Your task to perform on an android device: Open battery settings Image 0: 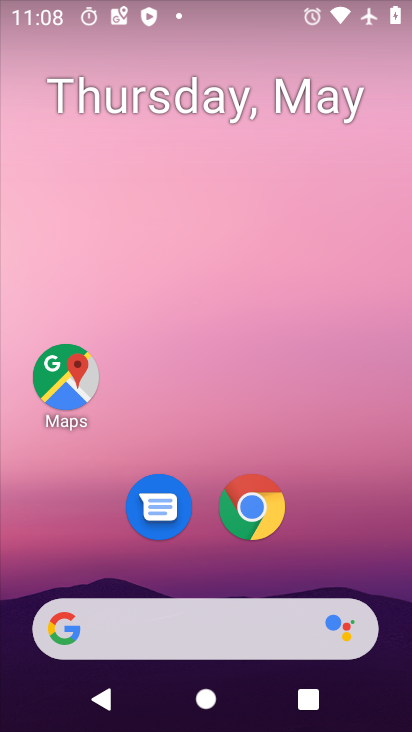
Step 0: drag from (329, 489) to (217, 34)
Your task to perform on an android device: Open battery settings Image 1: 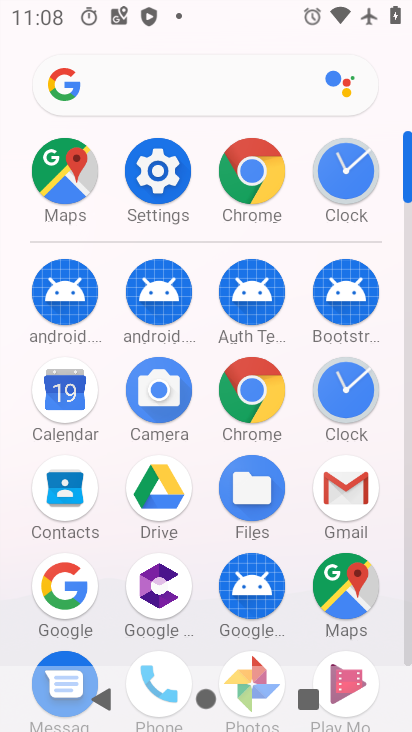
Step 1: click (156, 164)
Your task to perform on an android device: Open battery settings Image 2: 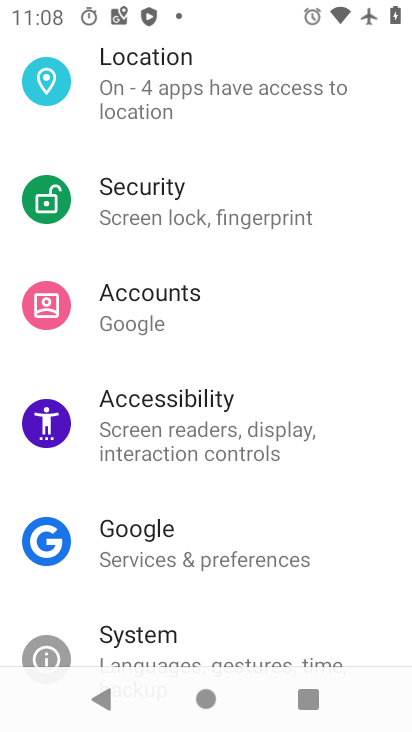
Step 2: drag from (229, 533) to (257, 70)
Your task to perform on an android device: Open battery settings Image 3: 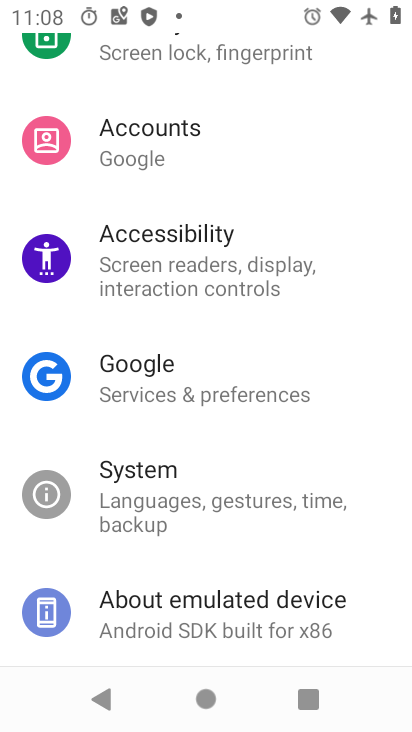
Step 3: drag from (271, 161) to (201, 549)
Your task to perform on an android device: Open battery settings Image 4: 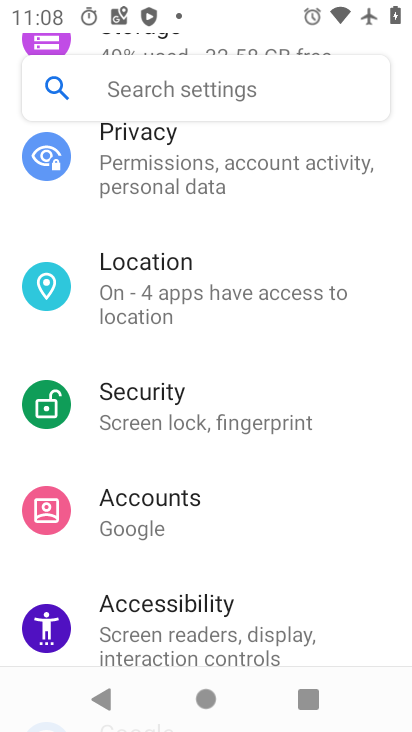
Step 4: drag from (225, 216) to (222, 582)
Your task to perform on an android device: Open battery settings Image 5: 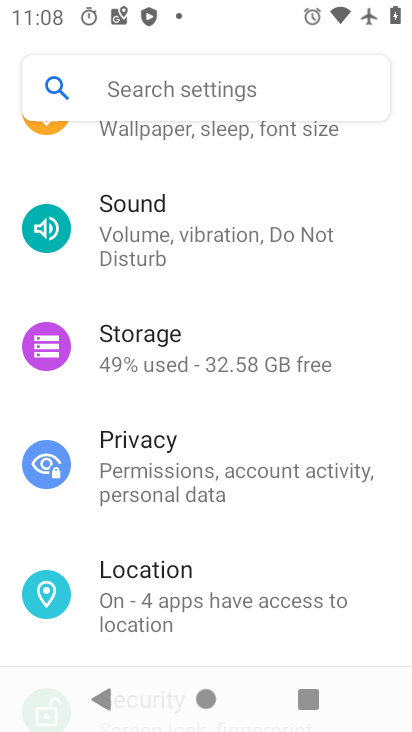
Step 5: drag from (240, 252) to (234, 557)
Your task to perform on an android device: Open battery settings Image 6: 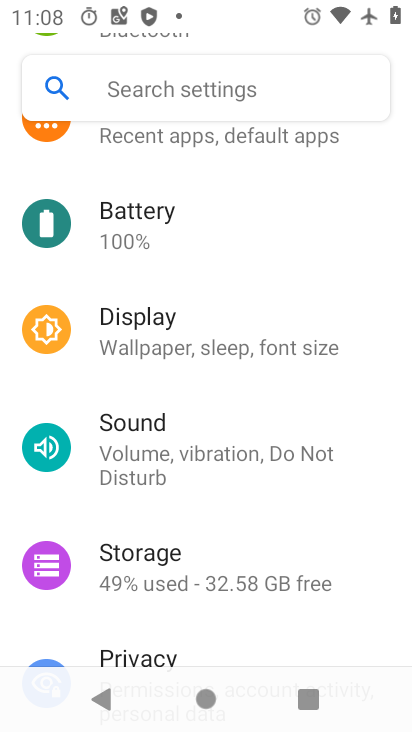
Step 6: click (156, 233)
Your task to perform on an android device: Open battery settings Image 7: 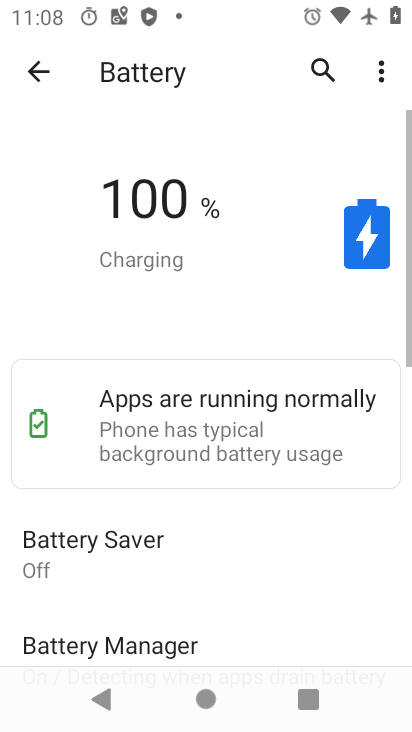
Step 7: task complete